Your task to perform on an android device: Go to Google maps Image 0: 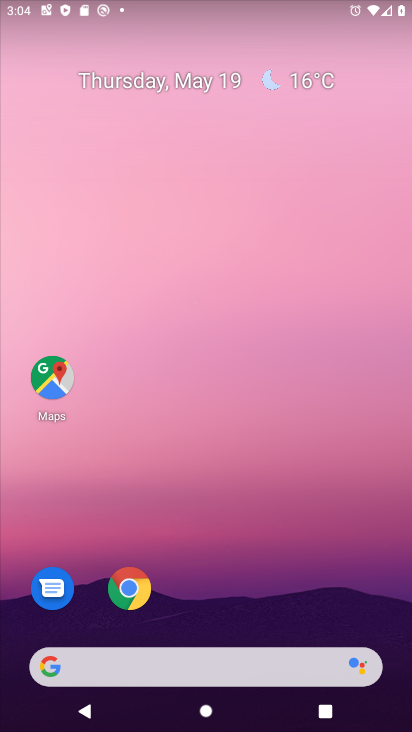
Step 0: click (62, 370)
Your task to perform on an android device: Go to Google maps Image 1: 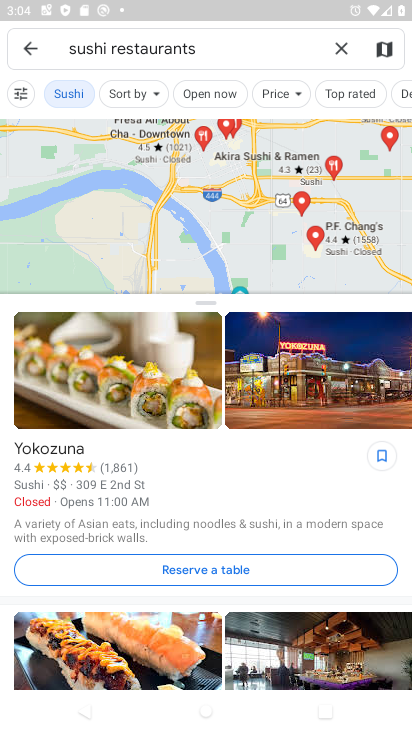
Step 1: task complete